Your task to perform on an android device: Open calendar and show me the second week of next month Image 0: 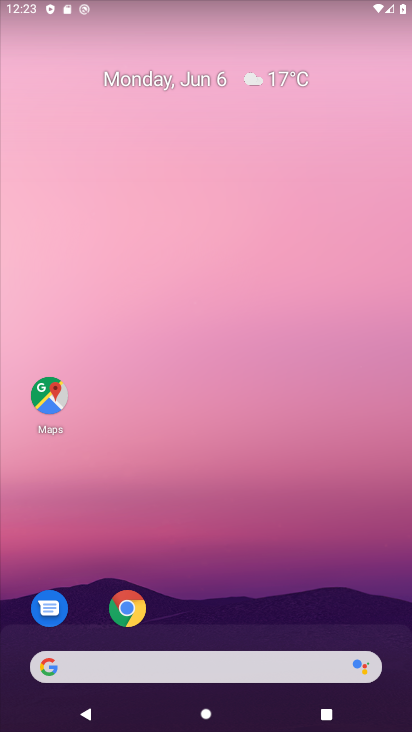
Step 0: drag from (198, 665) to (180, 343)
Your task to perform on an android device: Open calendar and show me the second week of next month Image 1: 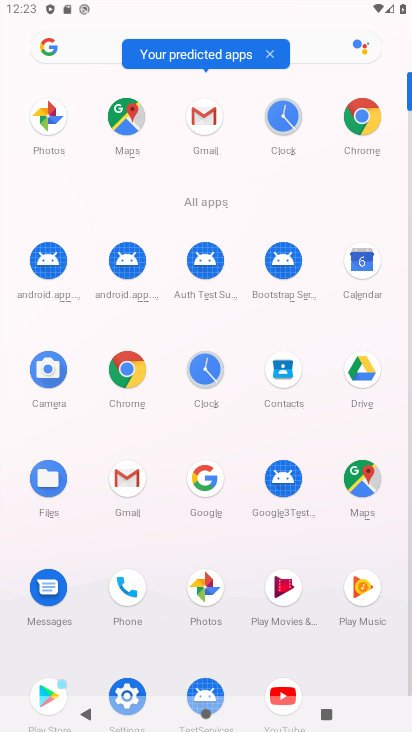
Step 1: click (371, 264)
Your task to perform on an android device: Open calendar and show me the second week of next month Image 2: 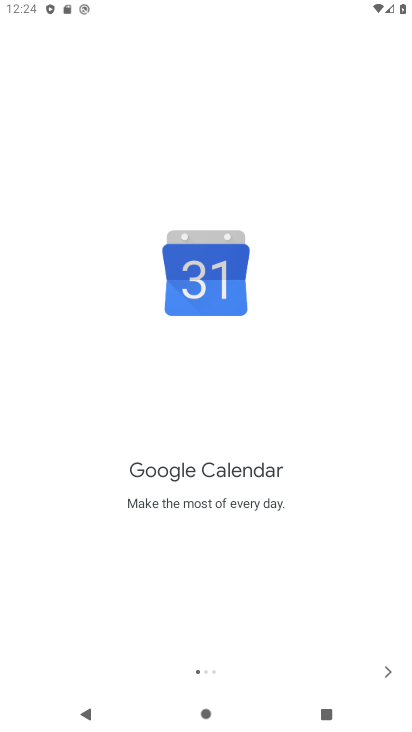
Step 2: click (394, 676)
Your task to perform on an android device: Open calendar and show me the second week of next month Image 3: 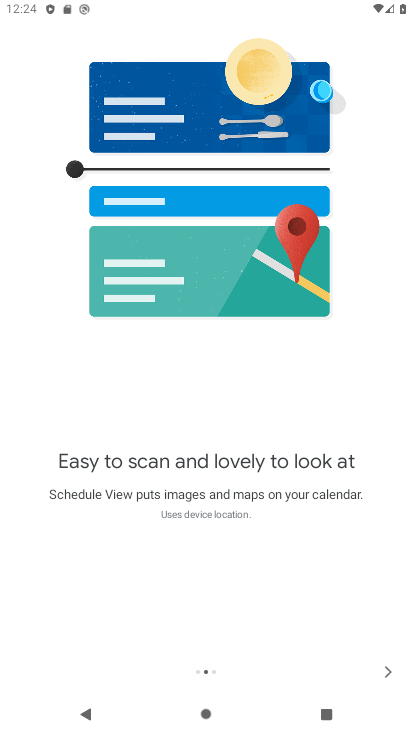
Step 3: click (394, 676)
Your task to perform on an android device: Open calendar and show me the second week of next month Image 4: 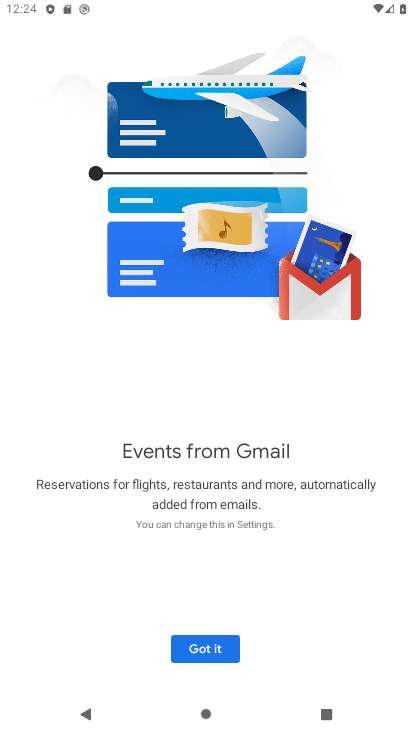
Step 4: click (217, 642)
Your task to perform on an android device: Open calendar and show me the second week of next month Image 5: 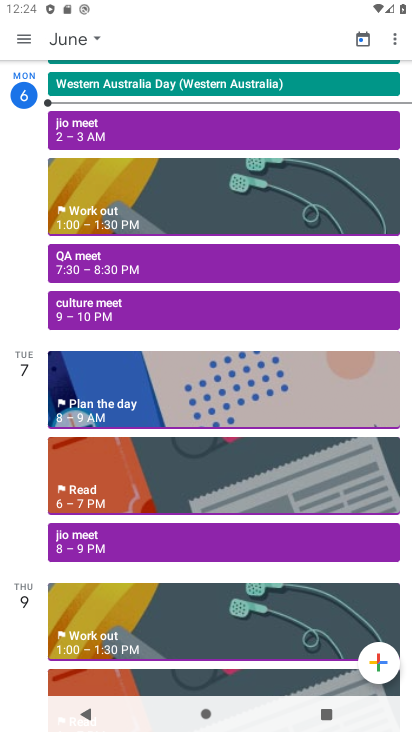
Step 5: click (94, 39)
Your task to perform on an android device: Open calendar and show me the second week of next month Image 6: 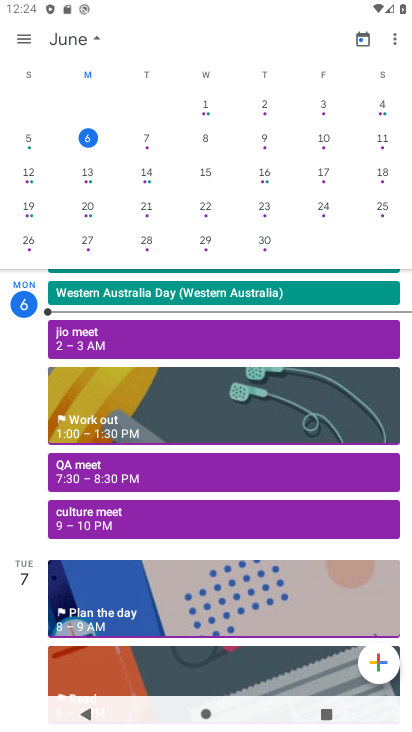
Step 6: drag from (366, 216) to (6, 232)
Your task to perform on an android device: Open calendar and show me the second week of next month Image 7: 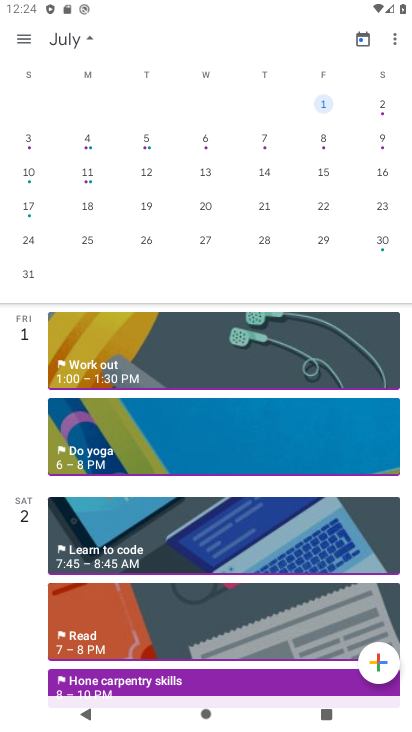
Step 7: click (26, 146)
Your task to perform on an android device: Open calendar and show me the second week of next month Image 8: 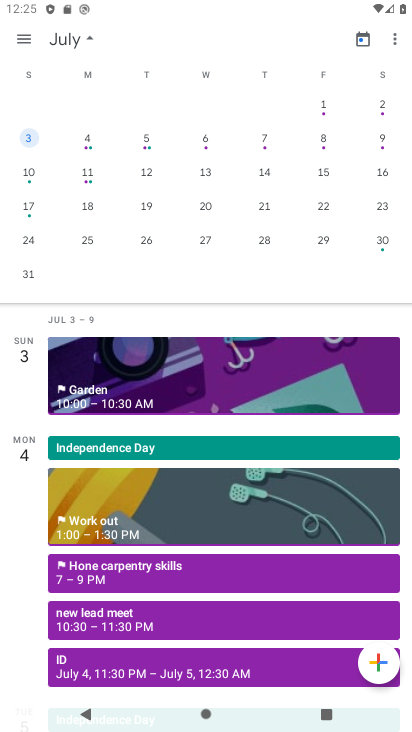
Step 8: task complete